Your task to perform on an android device: Open network settings Image 0: 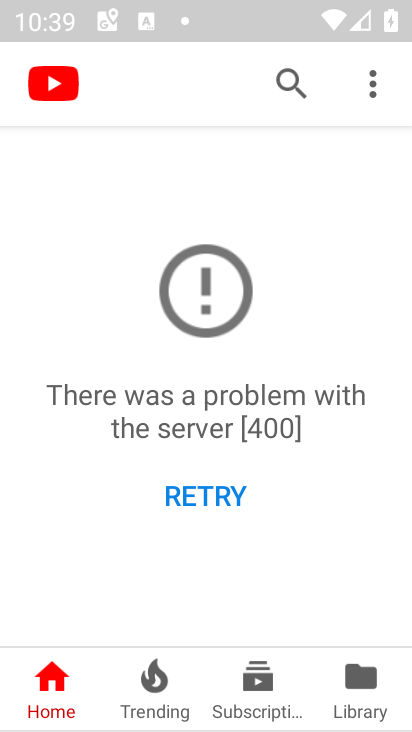
Step 0: press home button
Your task to perform on an android device: Open network settings Image 1: 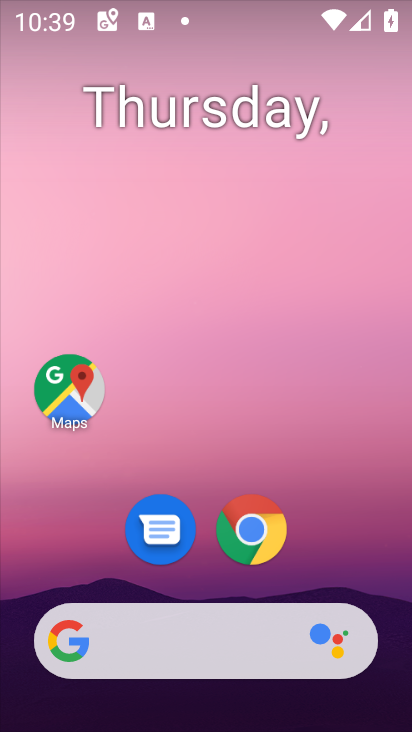
Step 1: drag from (238, 678) to (114, 195)
Your task to perform on an android device: Open network settings Image 2: 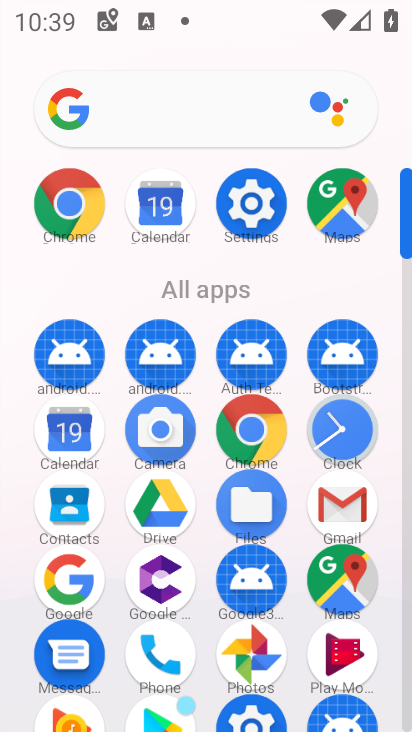
Step 2: click (263, 232)
Your task to perform on an android device: Open network settings Image 3: 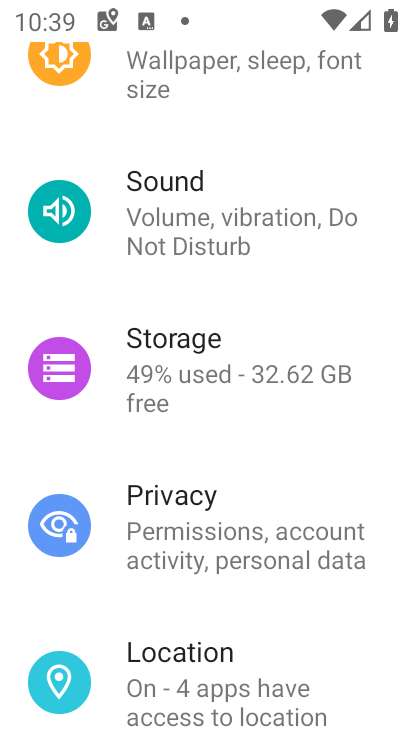
Step 3: drag from (262, 235) to (279, 639)
Your task to perform on an android device: Open network settings Image 4: 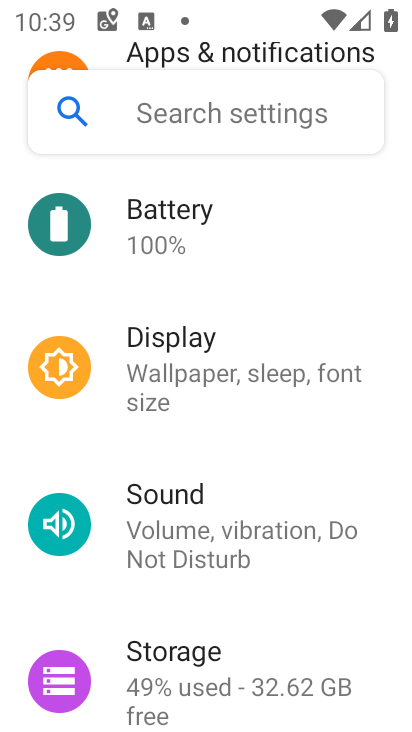
Step 4: drag from (203, 266) to (197, 718)
Your task to perform on an android device: Open network settings Image 5: 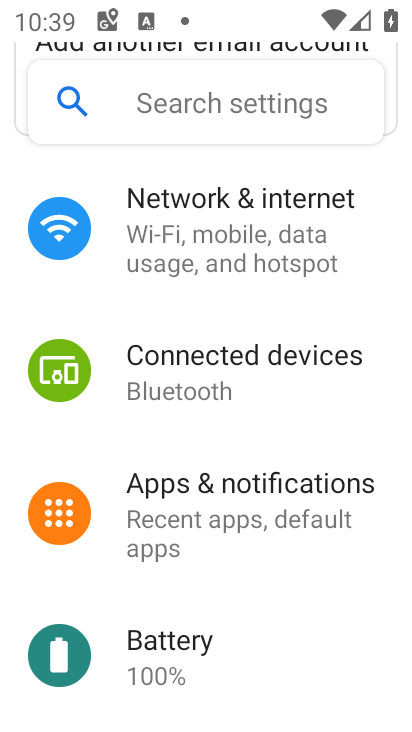
Step 5: click (212, 259)
Your task to perform on an android device: Open network settings Image 6: 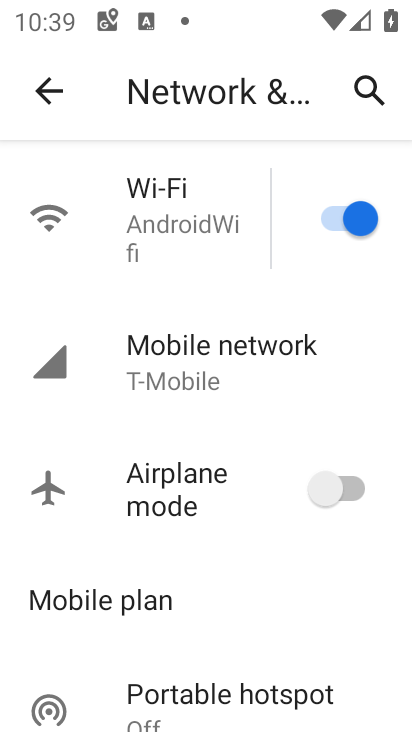
Step 6: click (215, 364)
Your task to perform on an android device: Open network settings Image 7: 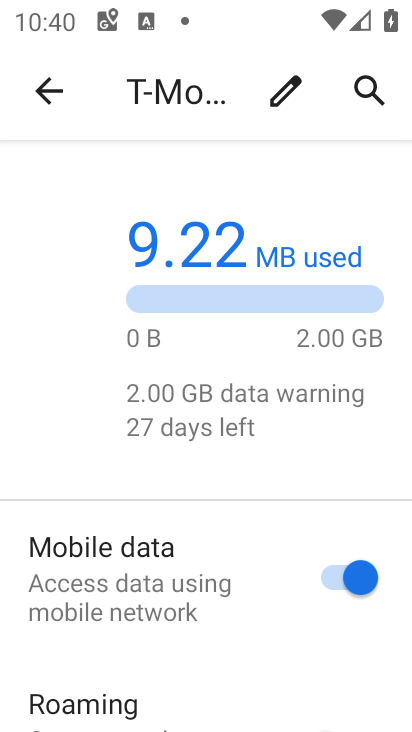
Step 7: task complete